Your task to perform on an android device: Open Google Chrome and open the bookmarks view Image 0: 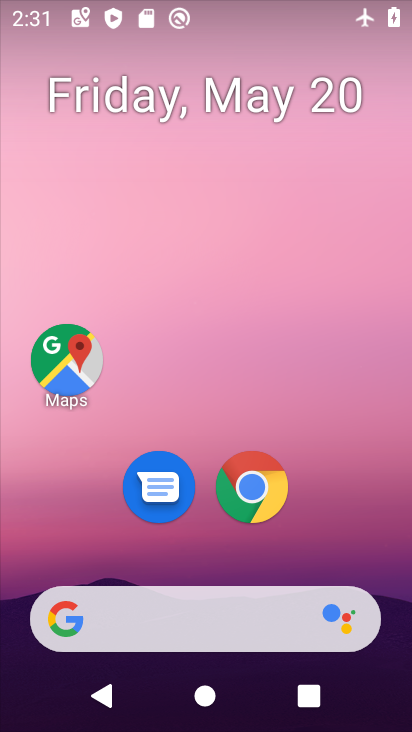
Step 0: drag from (349, 574) to (267, 93)
Your task to perform on an android device: Open Google Chrome and open the bookmarks view Image 1: 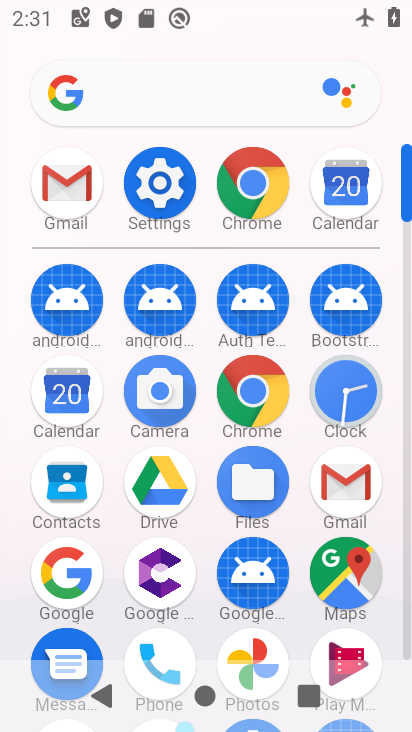
Step 1: click (152, 189)
Your task to perform on an android device: Open Google Chrome and open the bookmarks view Image 2: 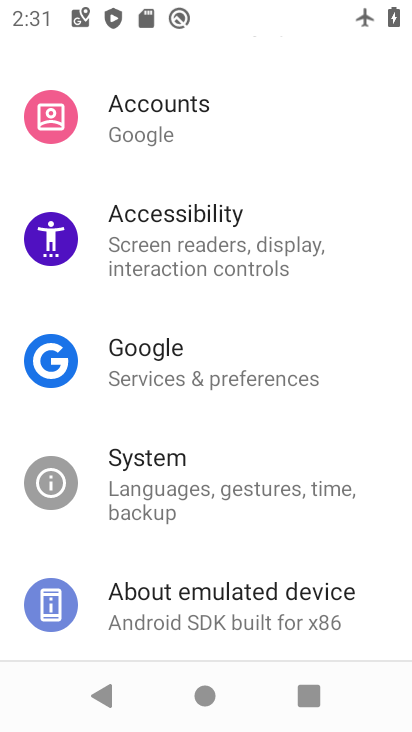
Step 2: press home button
Your task to perform on an android device: Open Google Chrome and open the bookmarks view Image 3: 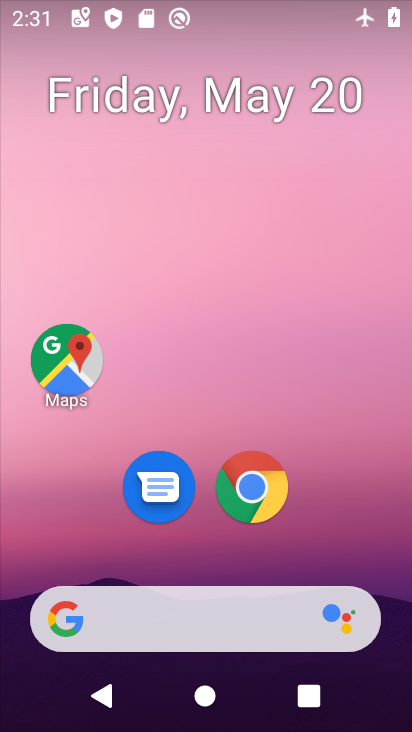
Step 3: drag from (341, 539) to (320, 116)
Your task to perform on an android device: Open Google Chrome and open the bookmarks view Image 4: 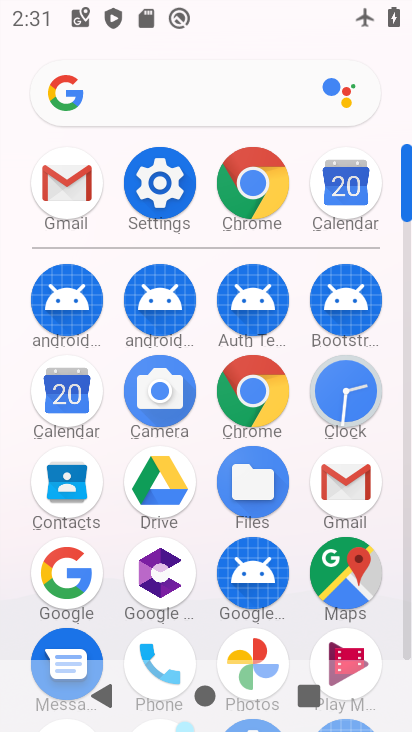
Step 4: click (262, 179)
Your task to perform on an android device: Open Google Chrome and open the bookmarks view Image 5: 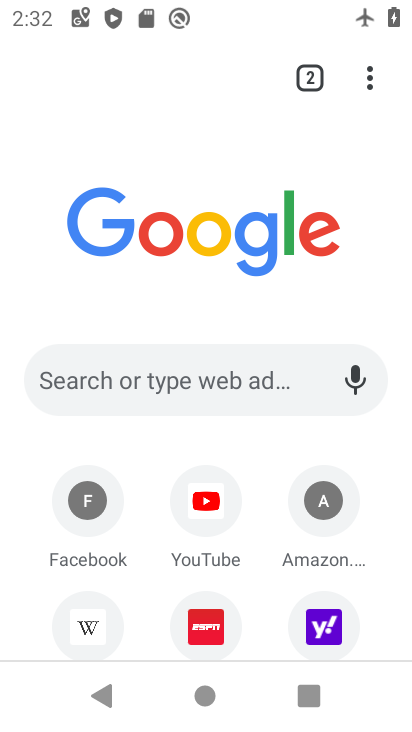
Step 5: drag from (359, 83) to (159, 430)
Your task to perform on an android device: Open Google Chrome and open the bookmarks view Image 6: 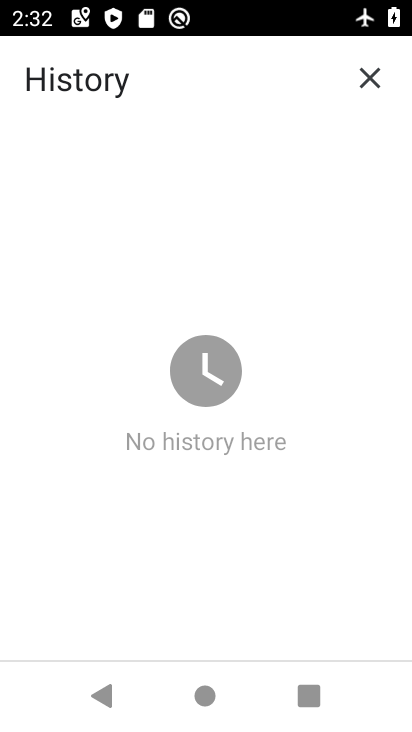
Step 6: click (206, 62)
Your task to perform on an android device: Open Google Chrome and open the bookmarks view Image 7: 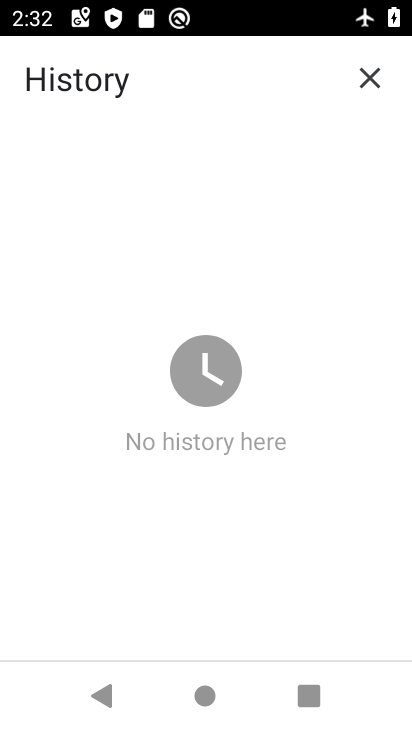
Step 7: click (380, 68)
Your task to perform on an android device: Open Google Chrome and open the bookmarks view Image 8: 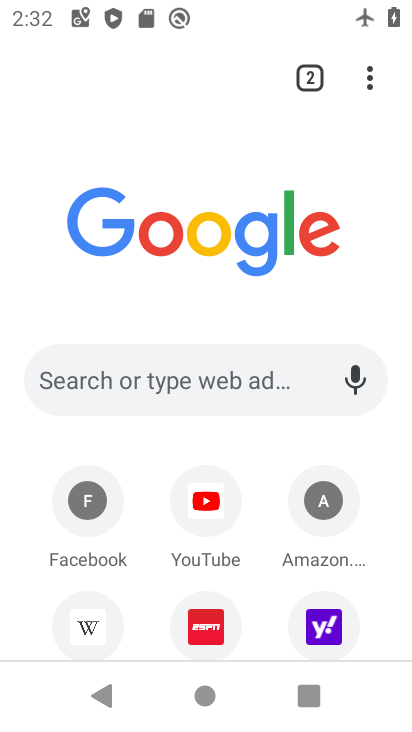
Step 8: task complete